Your task to perform on an android device: Go to eBay Image 0: 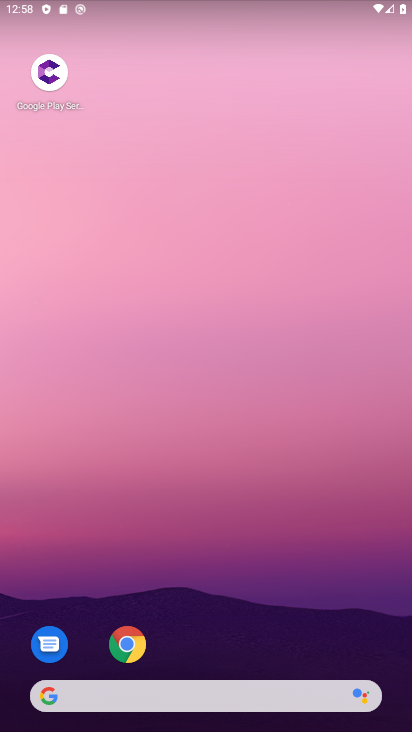
Step 0: click (130, 639)
Your task to perform on an android device: Go to eBay Image 1: 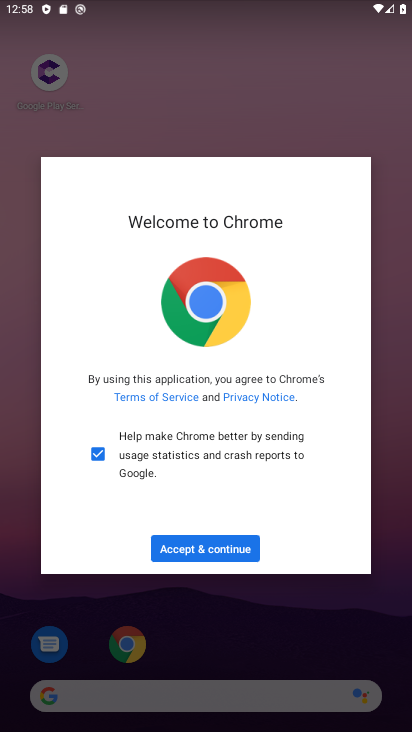
Step 1: click (239, 541)
Your task to perform on an android device: Go to eBay Image 2: 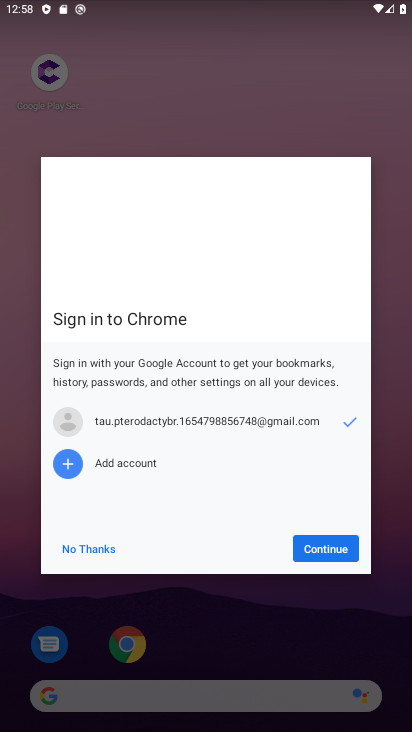
Step 2: click (321, 543)
Your task to perform on an android device: Go to eBay Image 3: 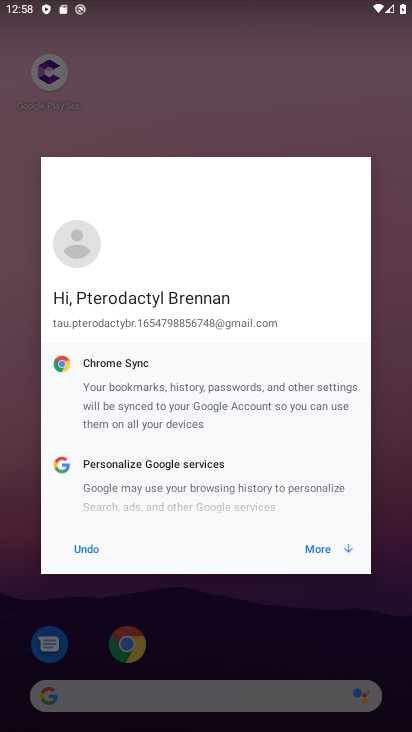
Step 3: click (321, 543)
Your task to perform on an android device: Go to eBay Image 4: 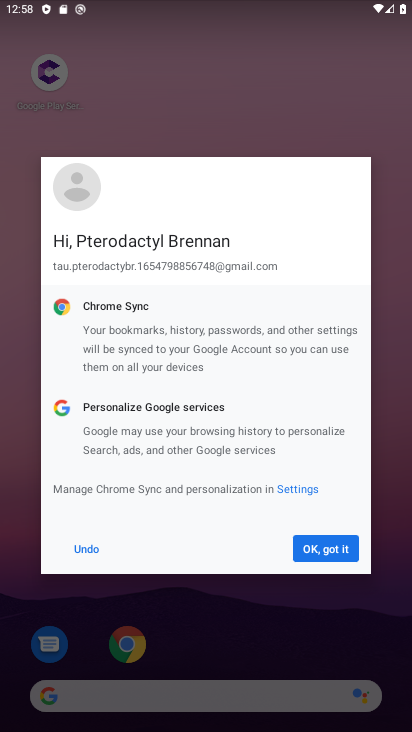
Step 4: click (323, 546)
Your task to perform on an android device: Go to eBay Image 5: 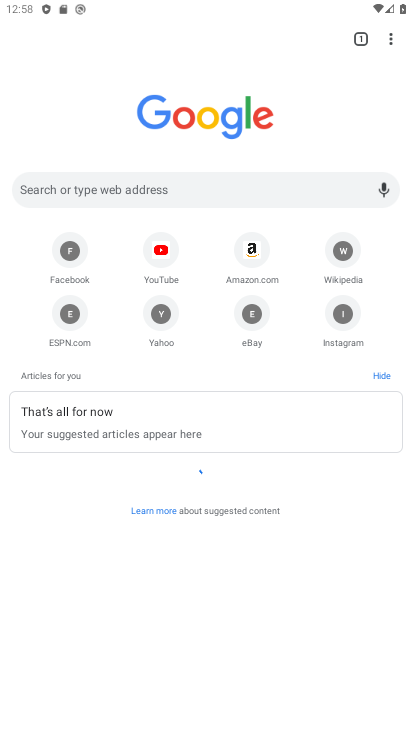
Step 5: click (251, 327)
Your task to perform on an android device: Go to eBay Image 6: 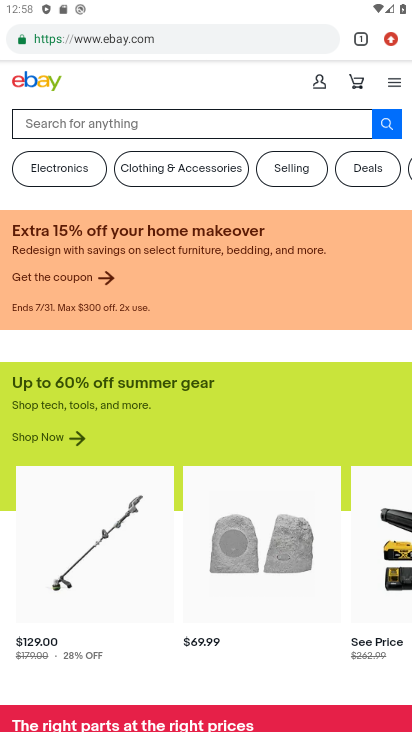
Step 6: task complete